Your task to perform on an android device: open sync settings in chrome Image 0: 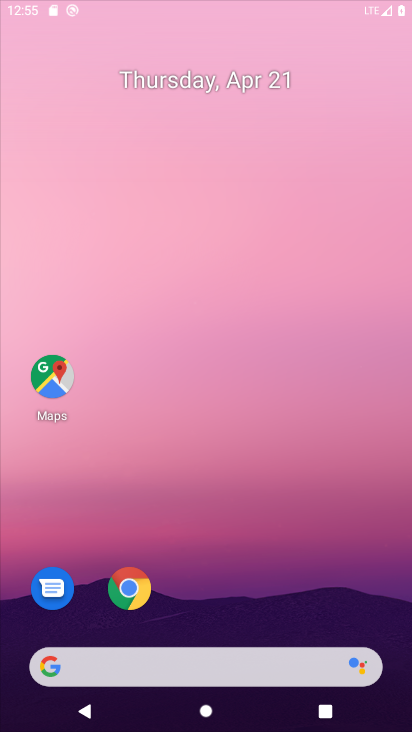
Step 0: click (233, 17)
Your task to perform on an android device: open sync settings in chrome Image 1: 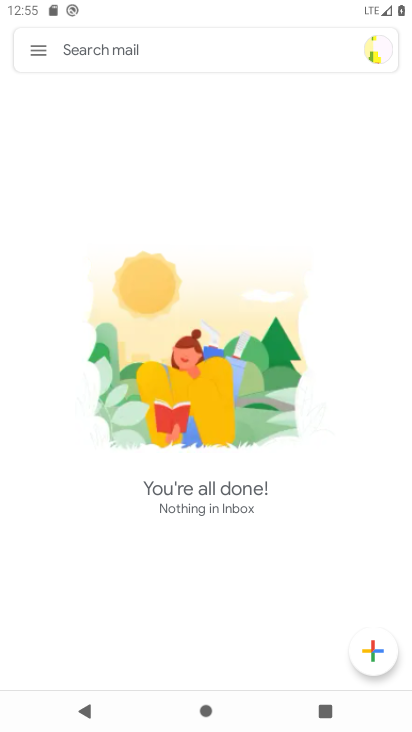
Step 1: press home button
Your task to perform on an android device: open sync settings in chrome Image 2: 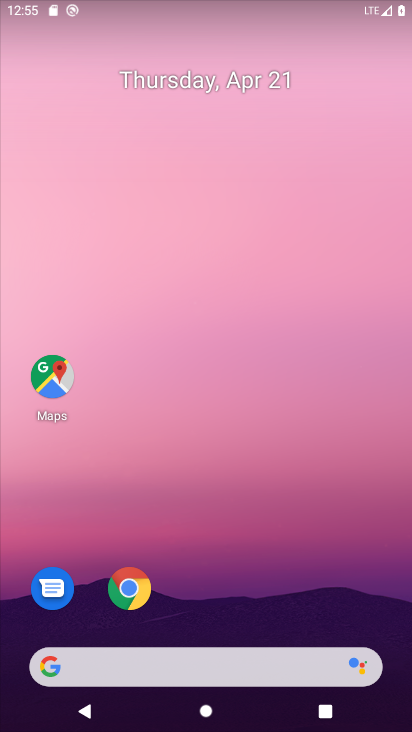
Step 2: click (124, 582)
Your task to perform on an android device: open sync settings in chrome Image 3: 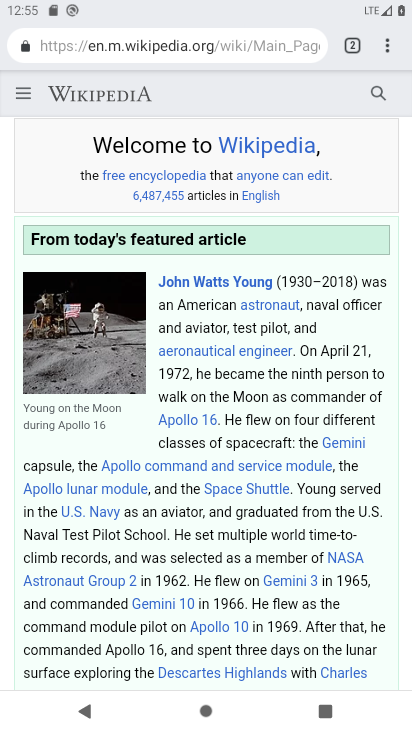
Step 3: click (384, 51)
Your task to perform on an android device: open sync settings in chrome Image 4: 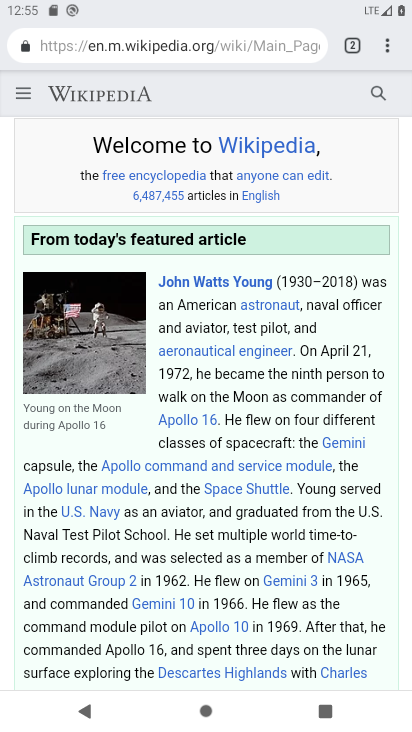
Step 4: click (389, 43)
Your task to perform on an android device: open sync settings in chrome Image 5: 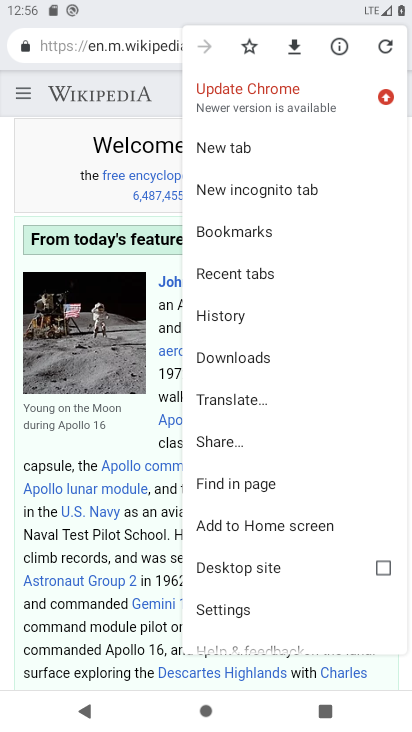
Step 5: click (252, 606)
Your task to perform on an android device: open sync settings in chrome Image 6: 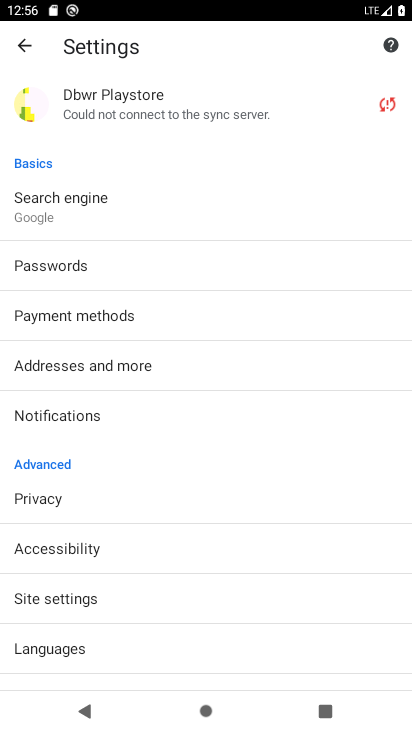
Step 6: click (133, 104)
Your task to perform on an android device: open sync settings in chrome Image 7: 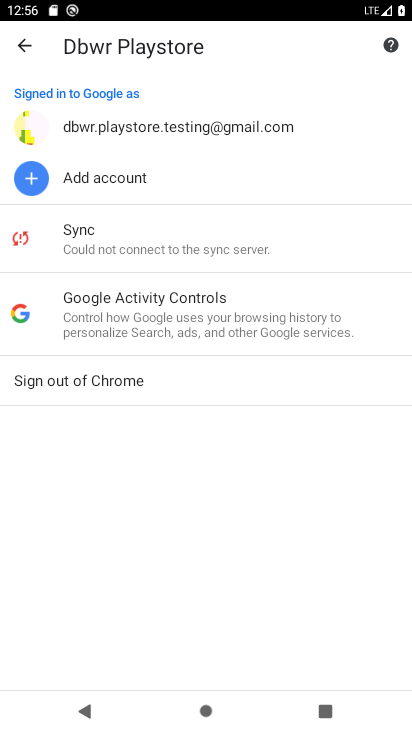
Step 7: click (111, 235)
Your task to perform on an android device: open sync settings in chrome Image 8: 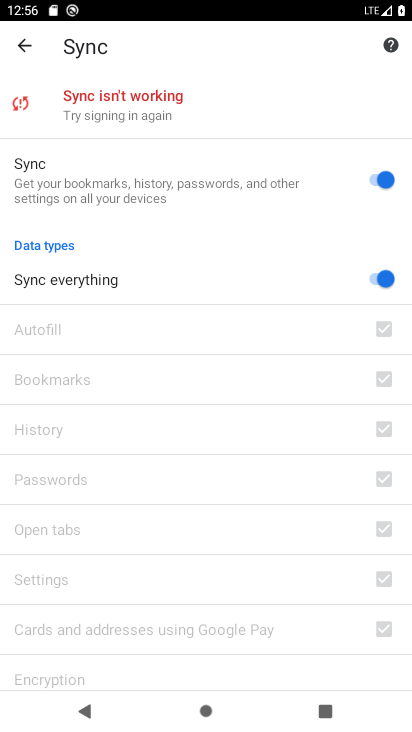
Step 8: task complete